Your task to perform on an android device: turn off javascript in the chrome app Image 0: 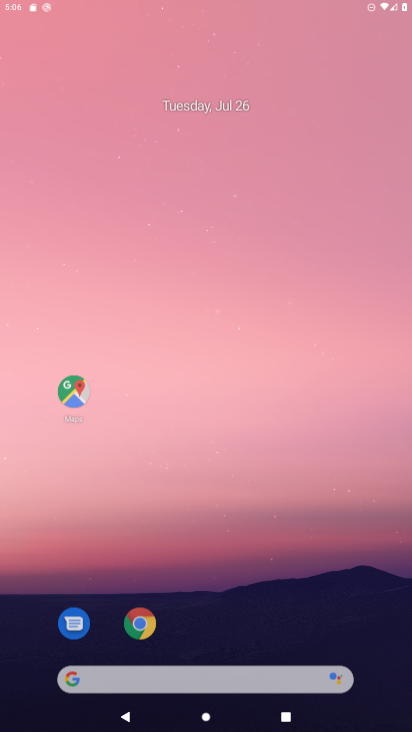
Step 0: click (136, 628)
Your task to perform on an android device: turn off javascript in the chrome app Image 1: 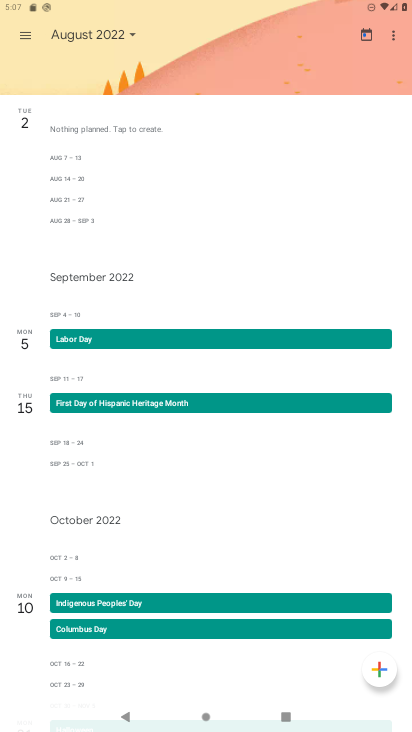
Step 1: click (394, 38)
Your task to perform on an android device: turn off javascript in the chrome app Image 2: 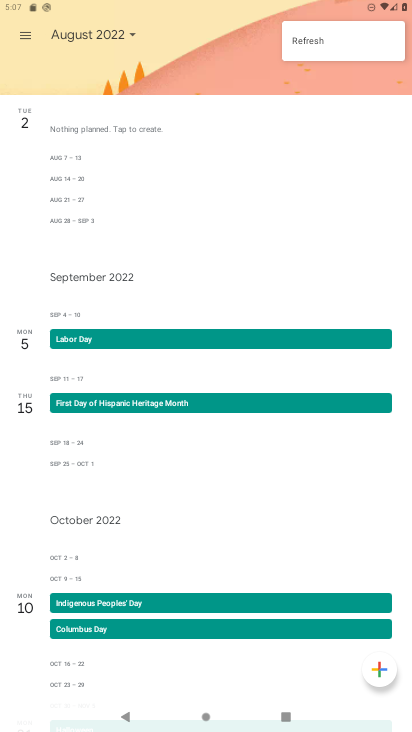
Step 2: click (19, 39)
Your task to perform on an android device: turn off javascript in the chrome app Image 3: 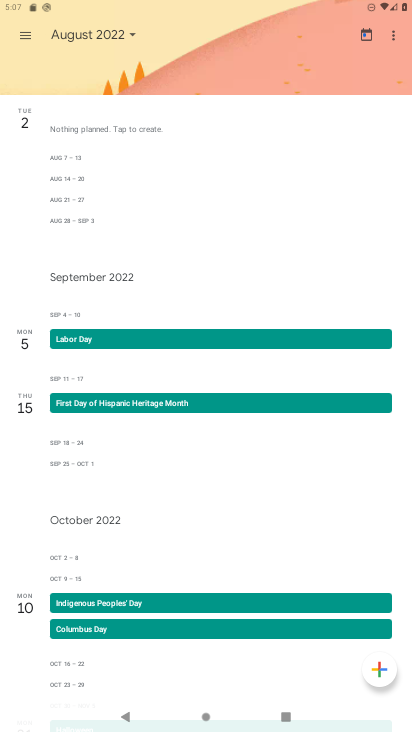
Step 3: press home button
Your task to perform on an android device: turn off javascript in the chrome app Image 4: 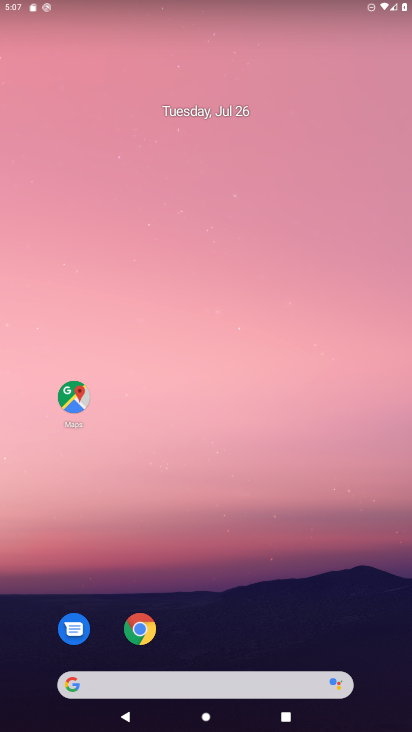
Step 4: click (148, 629)
Your task to perform on an android device: turn off javascript in the chrome app Image 5: 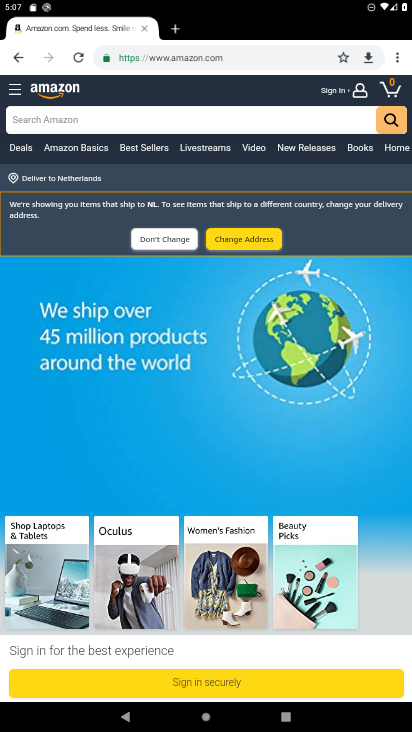
Step 5: click (398, 61)
Your task to perform on an android device: turn off javascript in the chrome app Image 6: 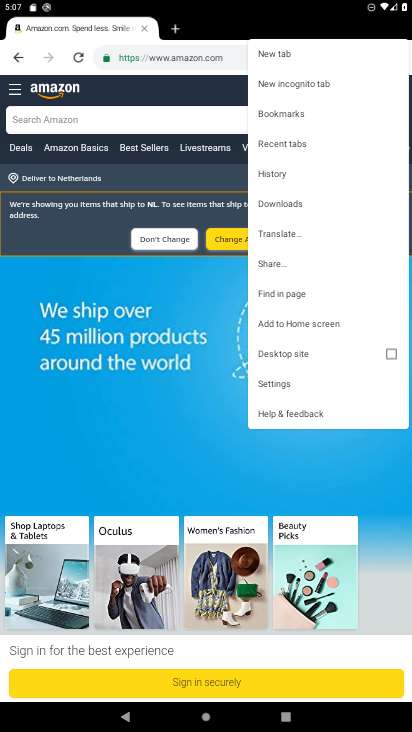
Step 6: click (284, 380)
Your task to perform on an android device: turn off javascript in the chrome app Image 7: 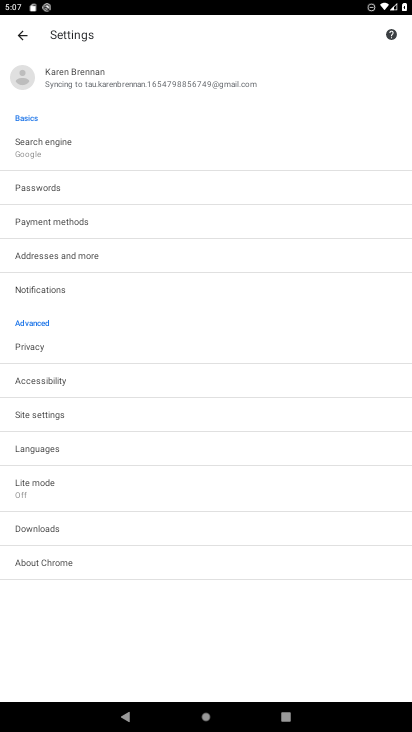
Step 7: click (36, 416)
Your task to perform on an android device: turn off javascript in the chrome app Image 8: 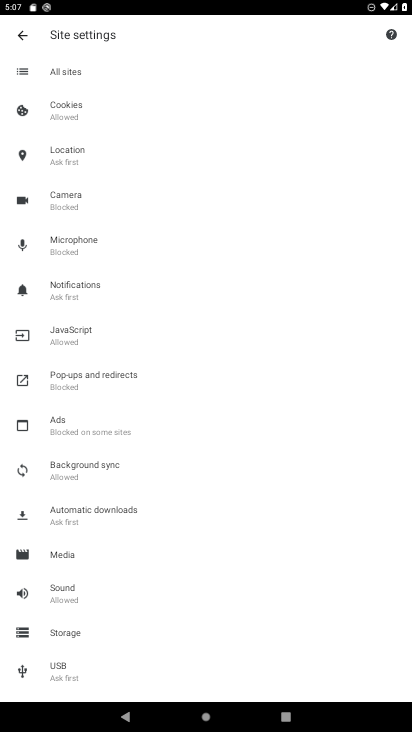
Step 8: click (77, 333)
Your task to perform on an android device: turn off javascript in the chrome app Image 9: 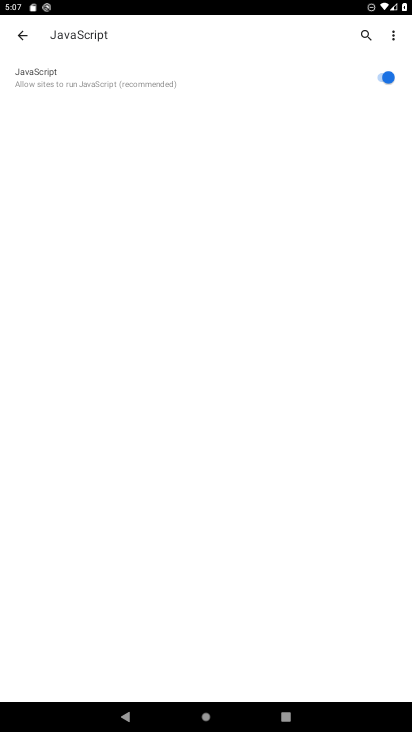
Step 9: click (380, 79)
Your task to perform on an android device: turn off javascript in the chrome app Image 10: 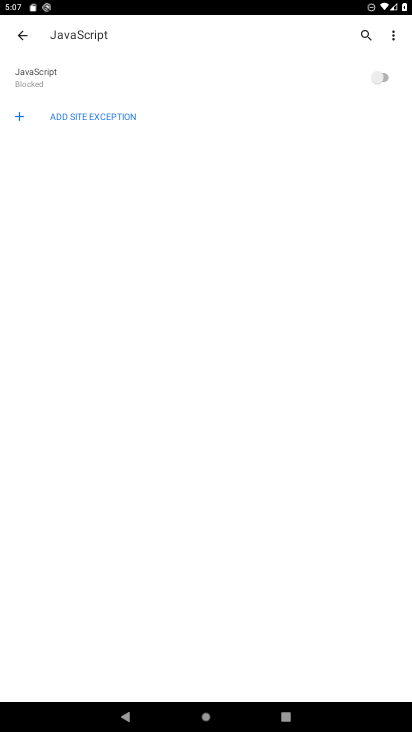
Step 10: task complete